Your task to perform on an android device: toggle priority inbox in the gmail app Image 0: 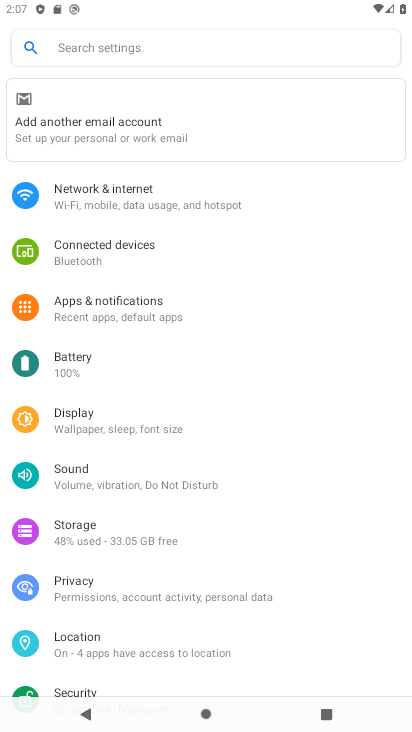
Step 0: press home button
Your task to perform on an android device: toggle priority inbox in the gmail app Image 1: 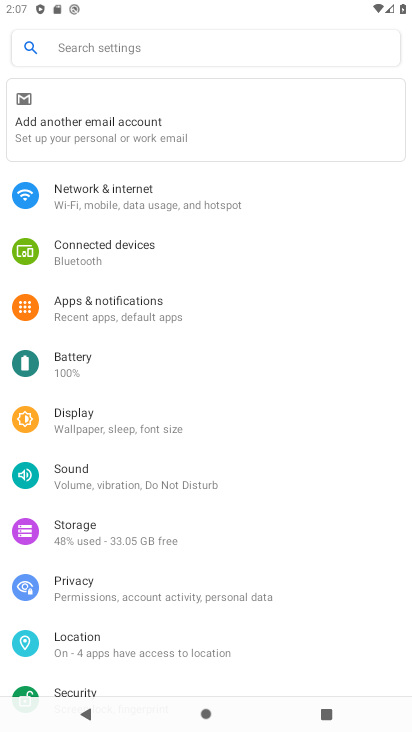
Step 1: press home button
Your task to perform on an android device: toggle priority inbox in the gmail app Image 2: 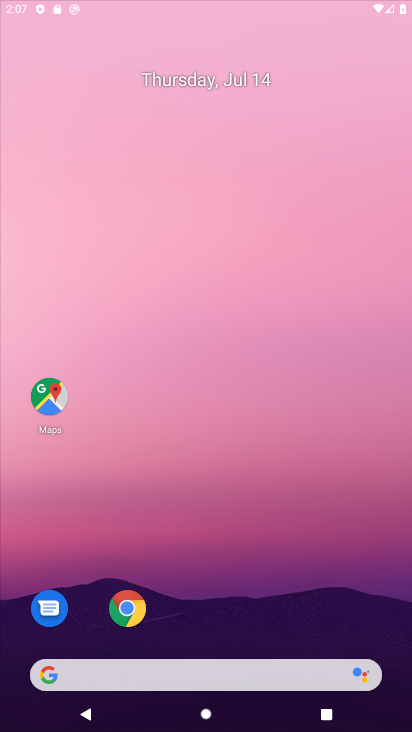
Step 2: drag from (248, 596) to (319, 287)
Your task to perform on an android device: toggle priority inbox in the gmail app Image 3: 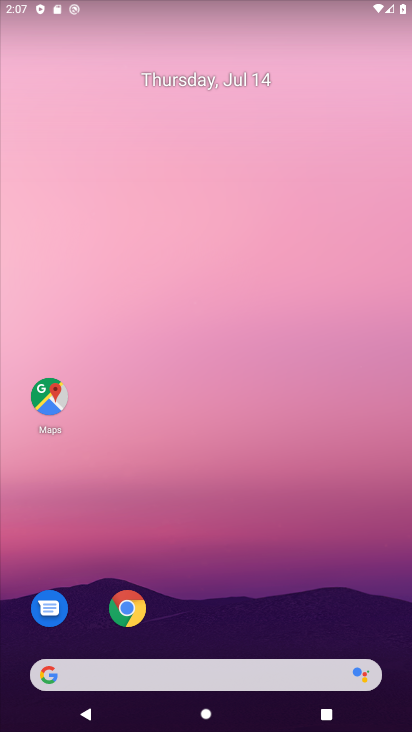
Step 3: drag from (179, 635) to (174, 35)
Your task to perform on an android device: toggle priority inbox in the gmail app Image 4: 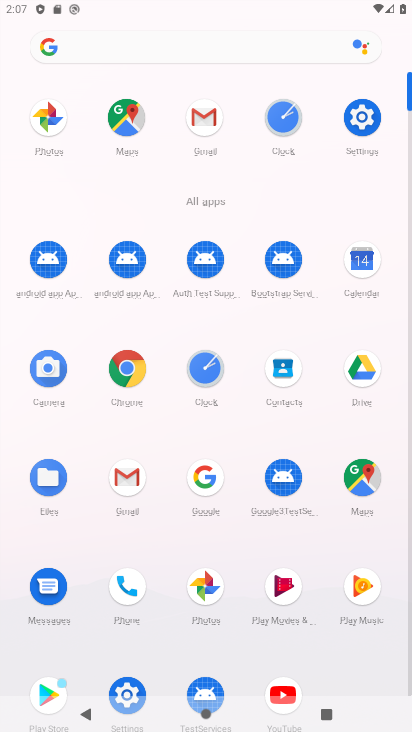
Step 4: click (205, 115)
Your task to perform on an android device: toggle priority inbox in the gmail app Image 5: 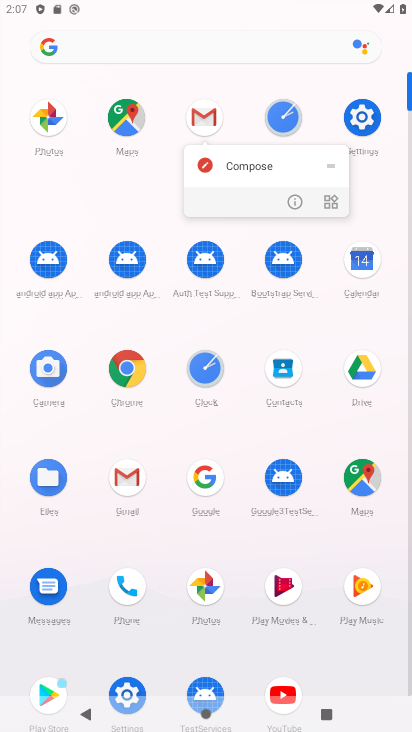
Step 5: click (291, 201)
Your task to perform on an android device: toggle priority inbox in the gmail app Image 6: 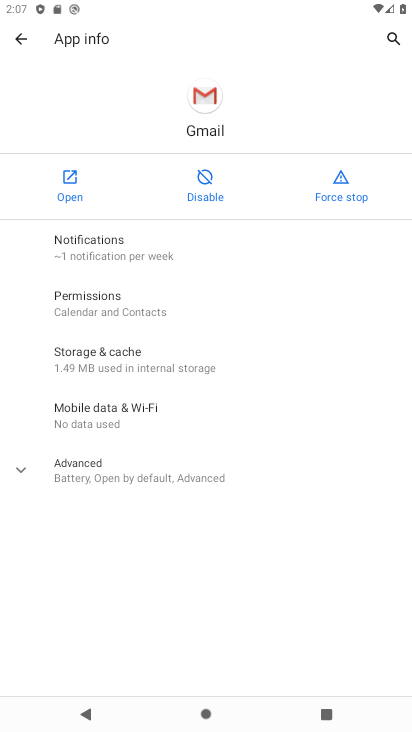
Step 6: click (74, 193)
Your task to perform on an android device: toggle priority inbox in the gmail app Image 7: 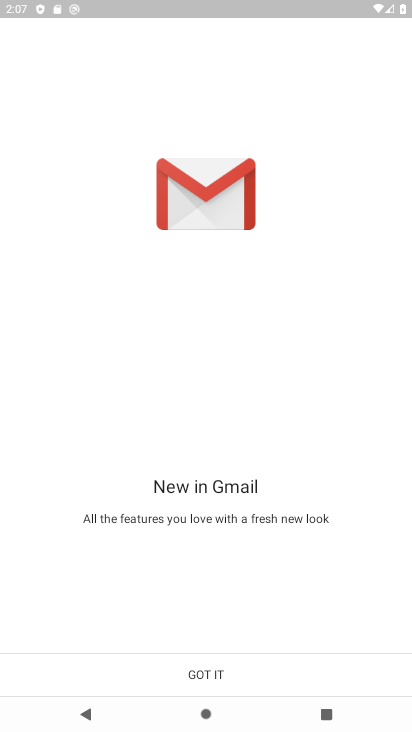
Step 7: drag from (214, 590) to (203, 376)
Your task to perform on an android device: toggle priority inbox in the gmail app Image 8: 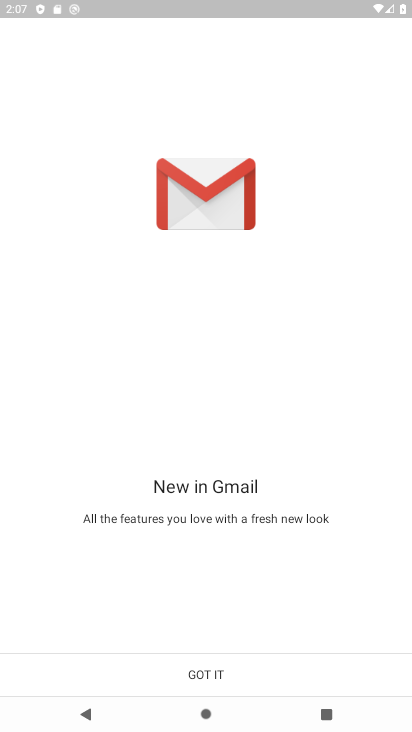
Step 8: click (205, 682)
Your task to perform on an android device: toggle priority inbox in the gmail app Image 9: 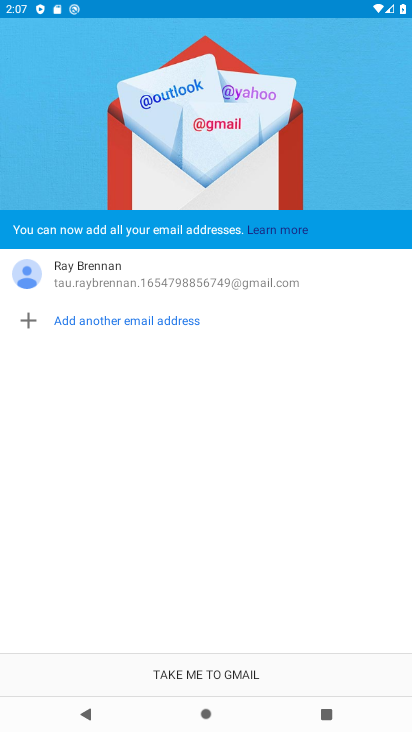
Step 9: click (186, 682)
Your task to perform on an android device: toggle priority inbox in the gmail app Image 10: 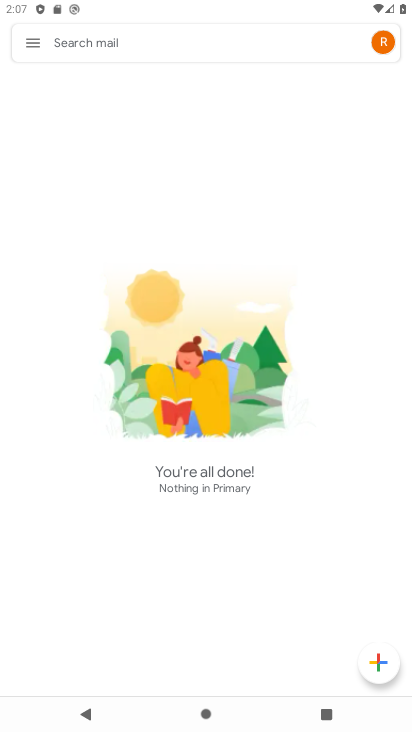
Step 10: click (29, 42)
Your task to perform on an android device: toggle priority inbox in the gmail app Image 11: 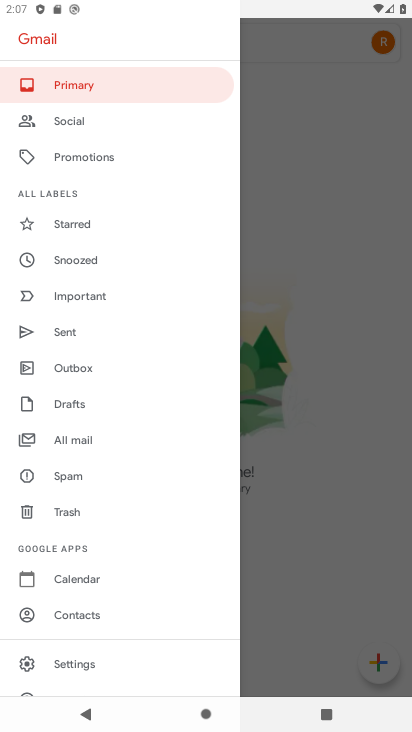
Step 11: click (90, 650)
Your task to perform on an android device: toggle priority inbox in the gmail app Image 12: 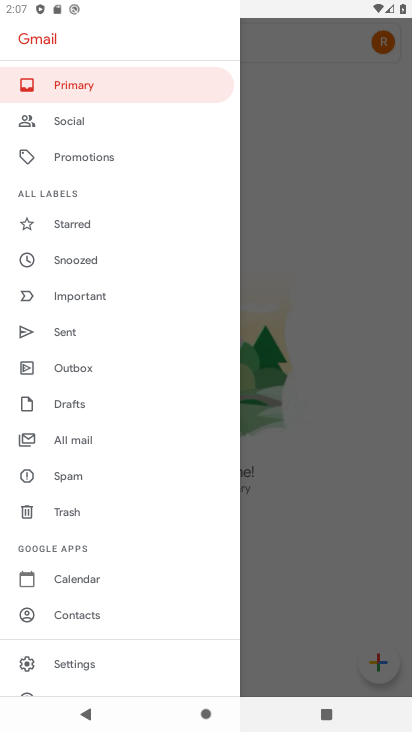
Step 12: click (93, 655)
Your task to perform on an android device: toggle priority inbox in the gmail app Image 13: 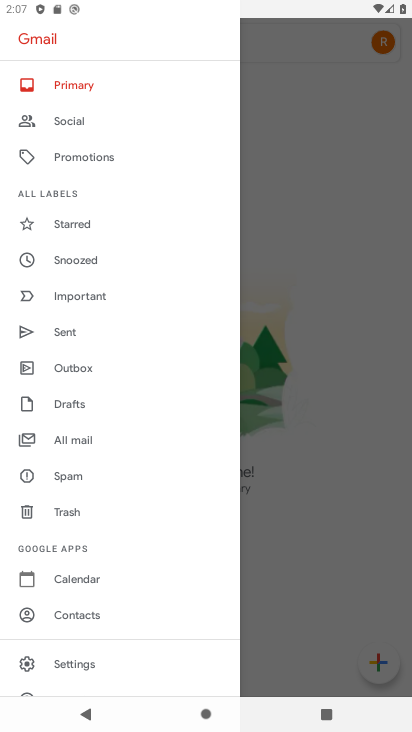
Step 13: click (91, 658)
Your task to perform on an android device: toggle priority inbox in the gmail app Image 14: 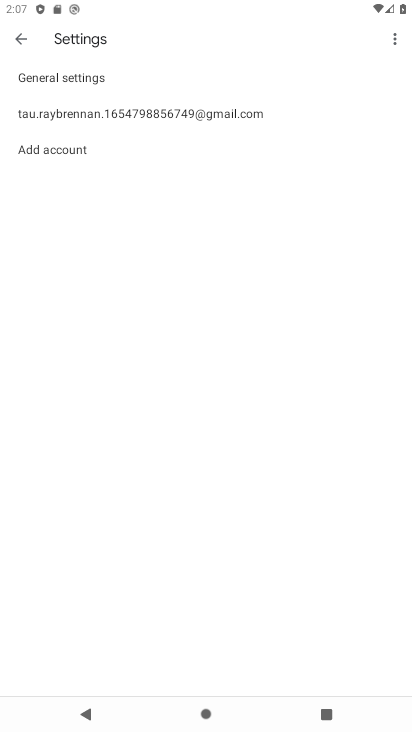
Step 14: click (104, 107)
Your task to perform on an android device: toggle priority inbox in the gmail app Image 15: 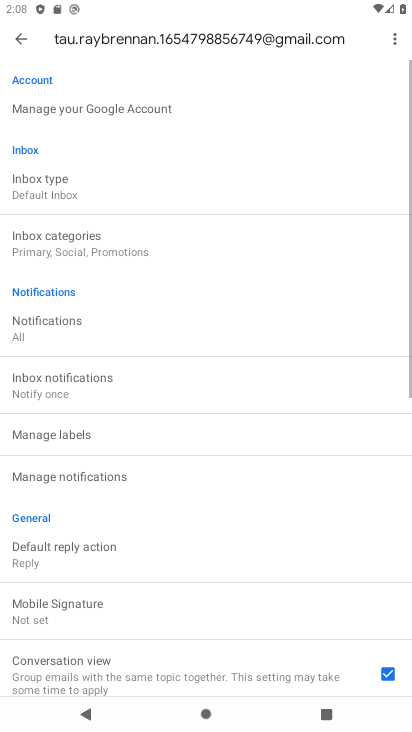
Step 15: click (56, 174)
Your task to perform on an android device: toggle priority inbox in the gmail app Image 16: 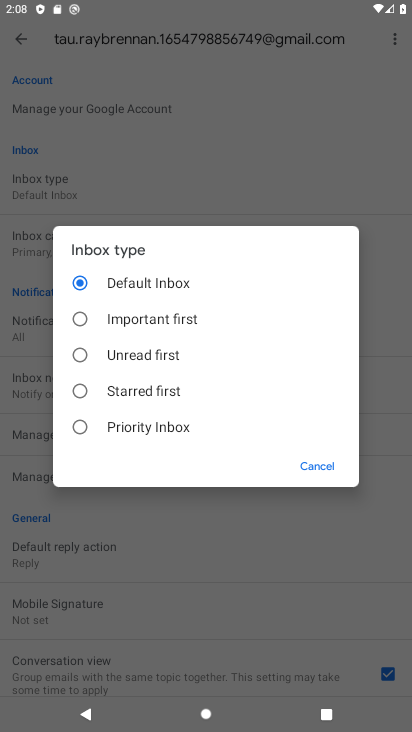
Step 16: click (130, 424)
Your task to perform on an android device: toggle priority inbox in the gmail app Image 17: 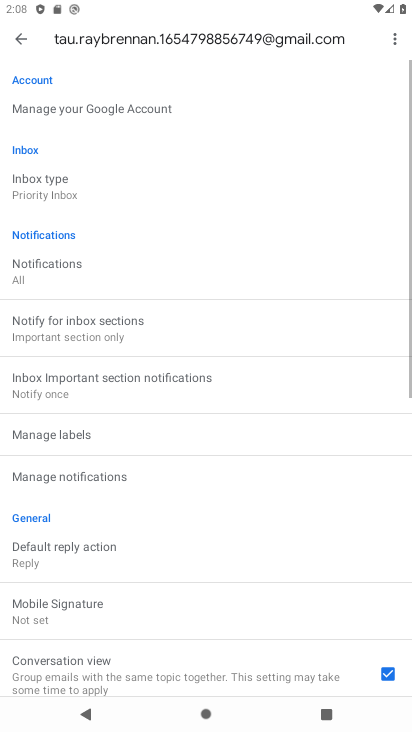
Step 17: task complete